Your task to perform on an android device: Search for Mexican restaurants on Maps Image 0: 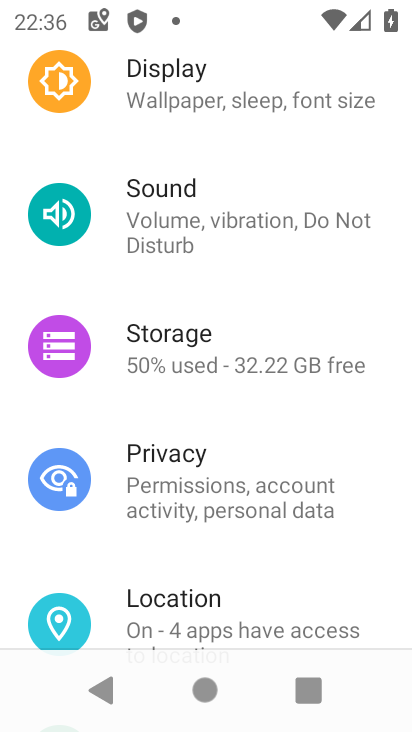
Step 0: press home button
Your task to perform on an android device: Search for Mexican restaurants on Maps Image 1: 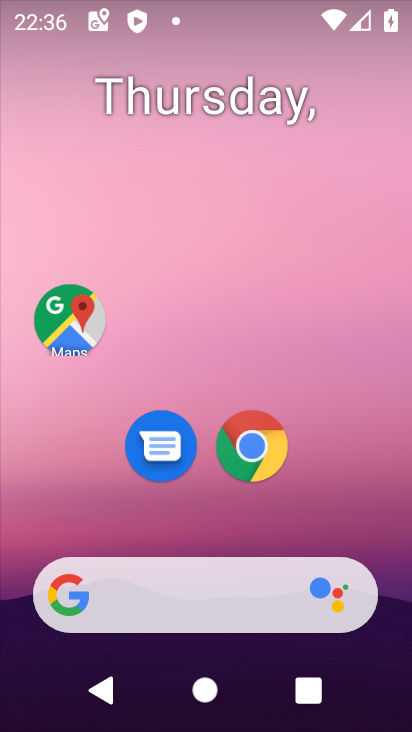
Step 1: click (51, 335)
Your task to perform on an android device: Search for Mexican restaurants on Maps Image 2: 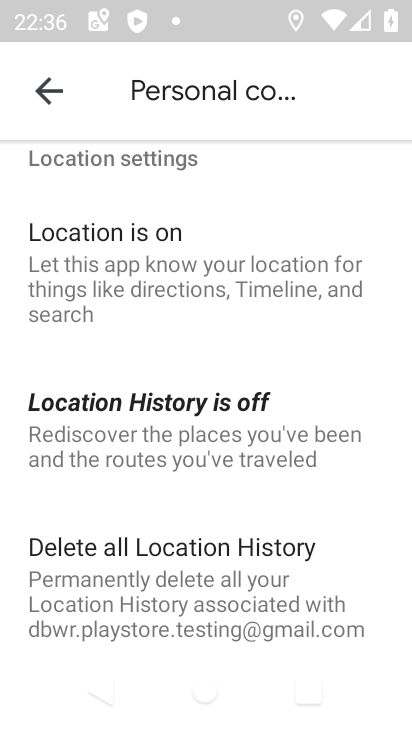
Step 2: click (34, 93)
Your task to perform on an android device: Search for Mexican restaurants on Maps Image 3: 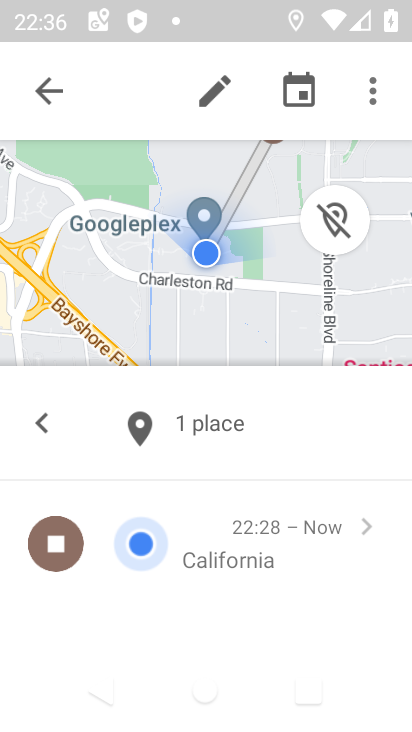
Step 3: click (34, 93)
Your task to perform on an android device: Search for Mexican restaurants on Maps Image 4: 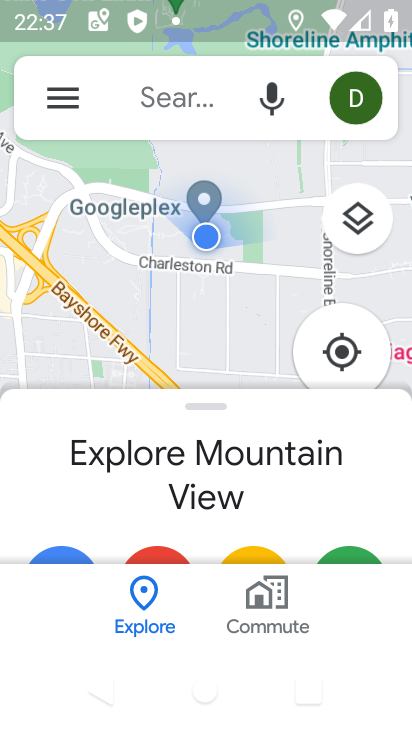
Step 4: click (155, 87)
Your task to perform on an android device: Search for Mexican restaurants on Maps Image 5: 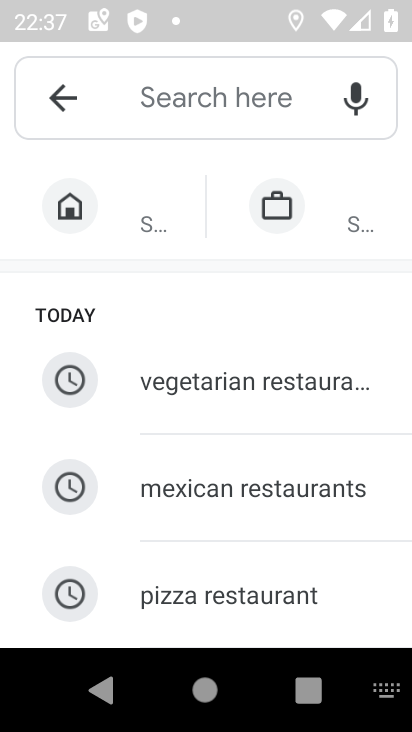
Step 5: type " Mexican restaurants"
Your task to perform on an android device: Search for Mexican restaurants on Maps Image 6: 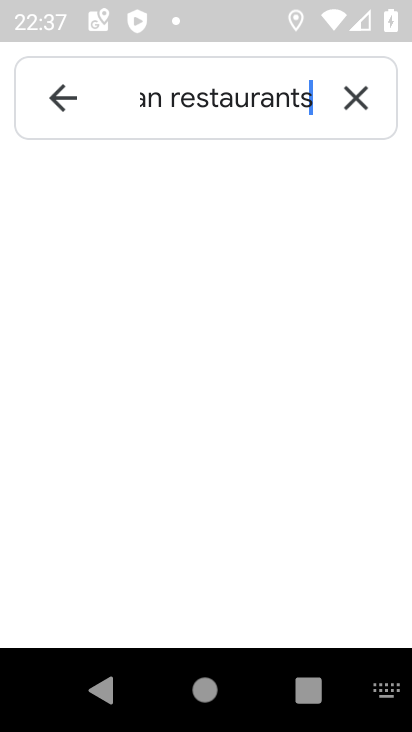
Step 6: type ""
Your task to perform on an android device: Search for Mexican restaurants on Maps Image 7: 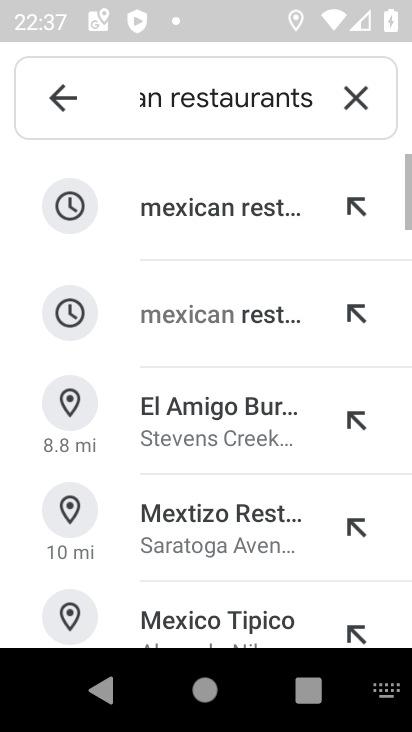
Step 7: click (151, 188)
Your task to perform on an android device: Search for Mexican restaurants on Maps Image 8: 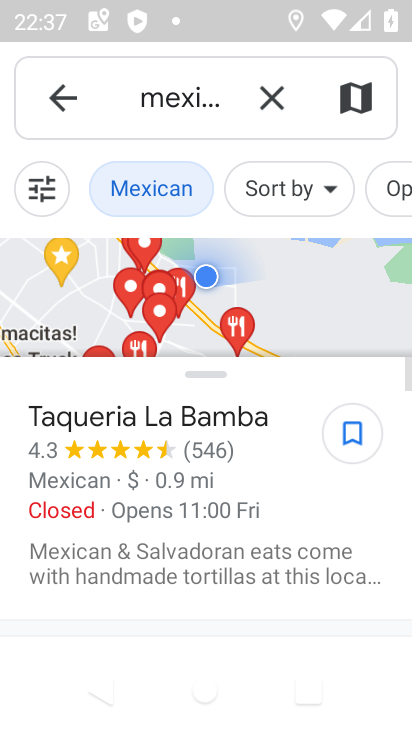
Step 8: task complete